Your task to perform on an android device: Open CNN.com Image 0: 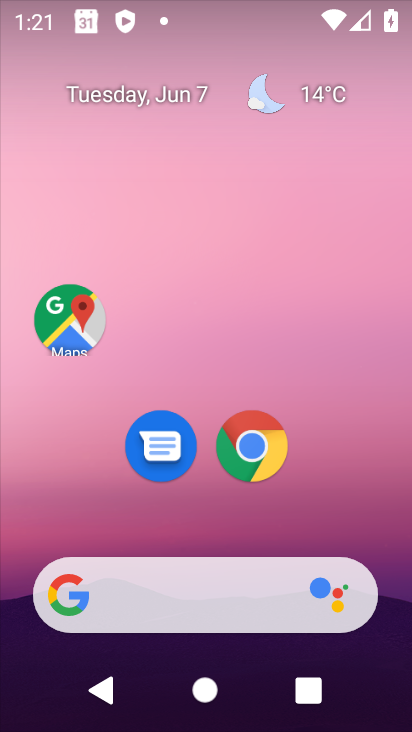
Step 0: click (146, 593)
Your task to perform on an android device: Open CNN.com Image 1: 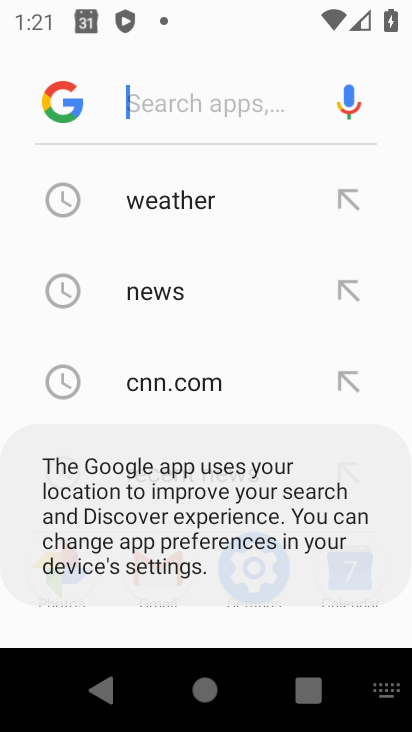
Step 1: click (220, 382)
Your task to perform on an android device: Open CNN.com Image 2: 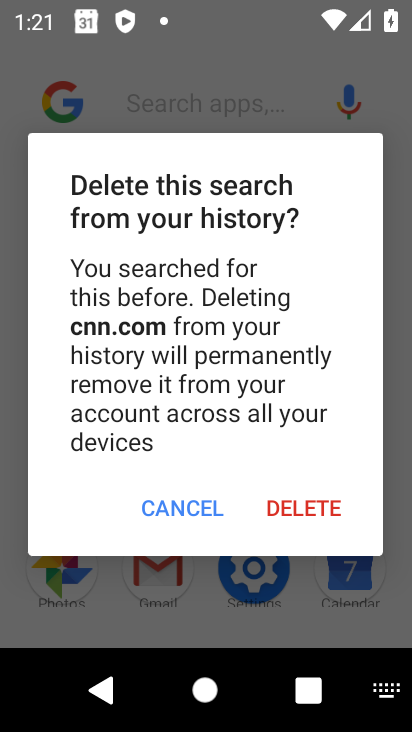
Step 2: click (198, 516)
Your task to perform on an android device: Open CNN.com Image 3: 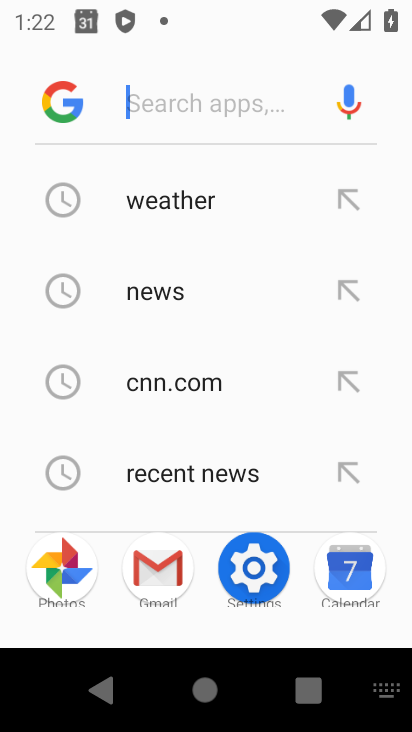
Step 3: click (226, 387)
Your task to perform on an android device: Open CNN.com Image 4: 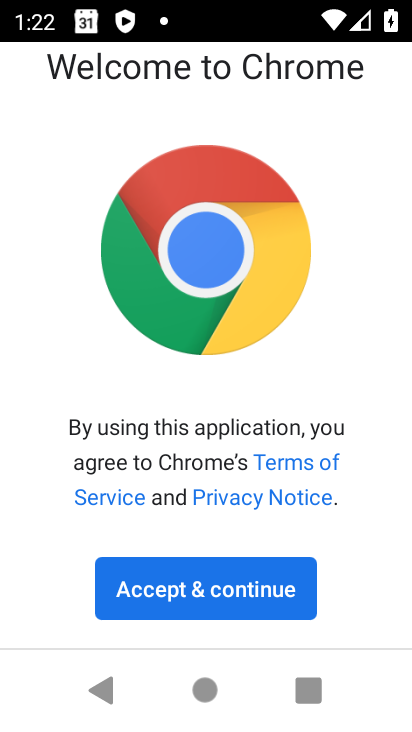
Step 4: click (209, 589)
Your task to perform on an android device: Open CNN.com Image 5: 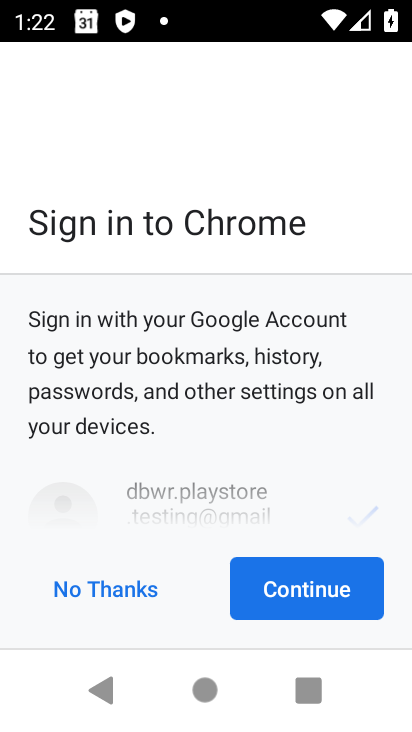
Step 5: click (383, 592)
Your task to perform on an android device: Open CNN.com Image 6: 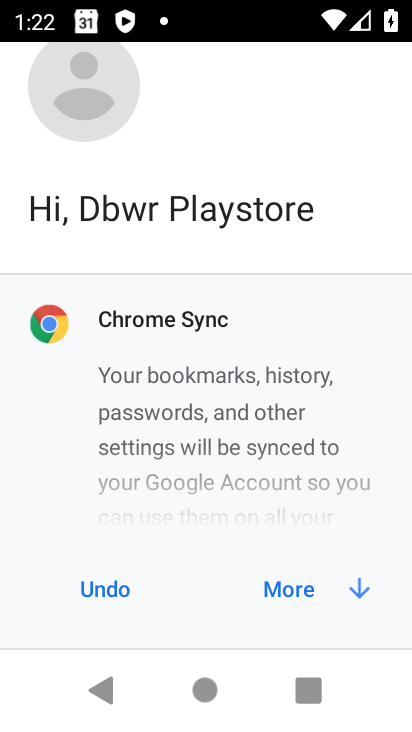
Step 6: click (294, 587)
Your task to perform on an android device: Open CNN.com Image 7: 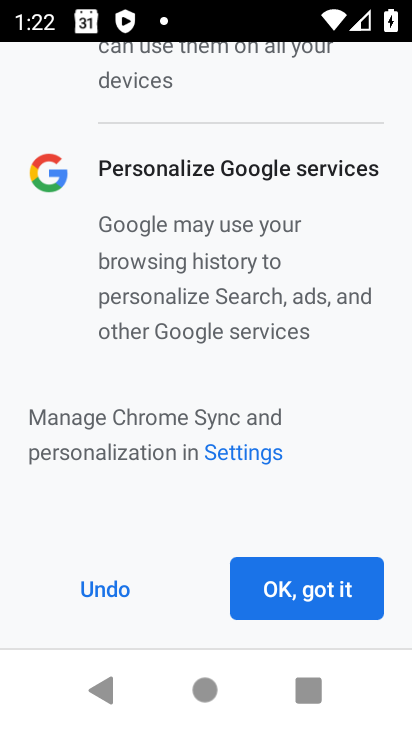
Step 7: click (294, 587)
Your task to perform on an android device: Open CNN.com Image 8: 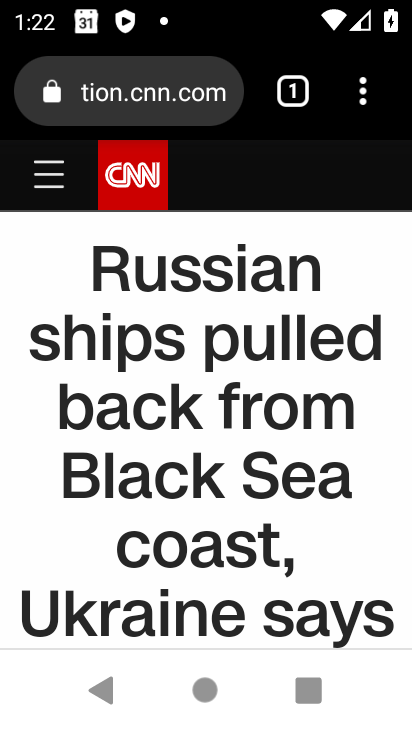
Step 8: task complete